Your task to perform on an android device: open app "Cash App" (install if not already installed) Image 0: 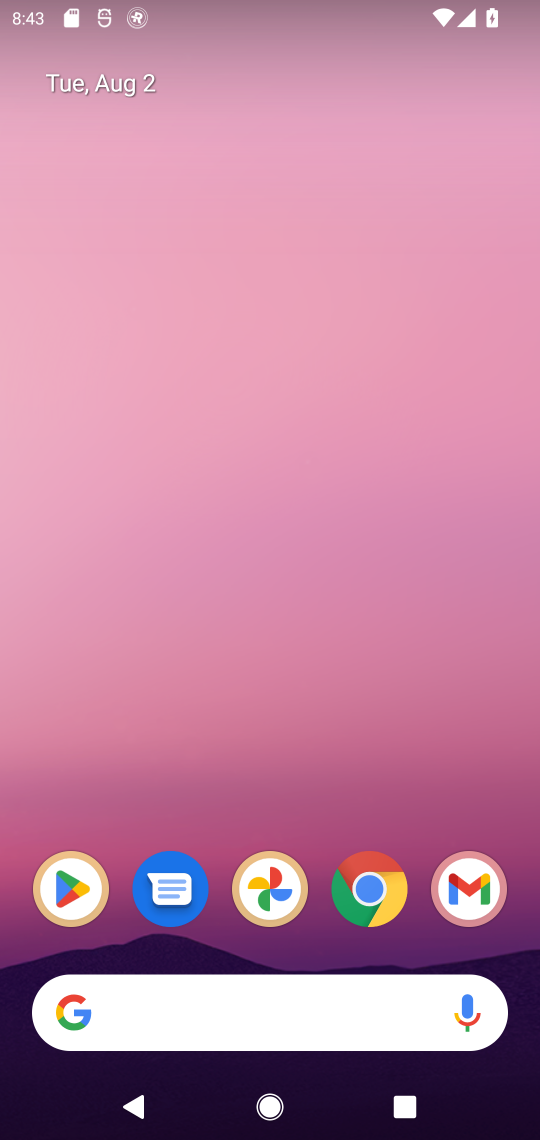
Step 0: press home button
Your task to perform on an android device: open app "Cash App" (install if not already installed) Image 1: 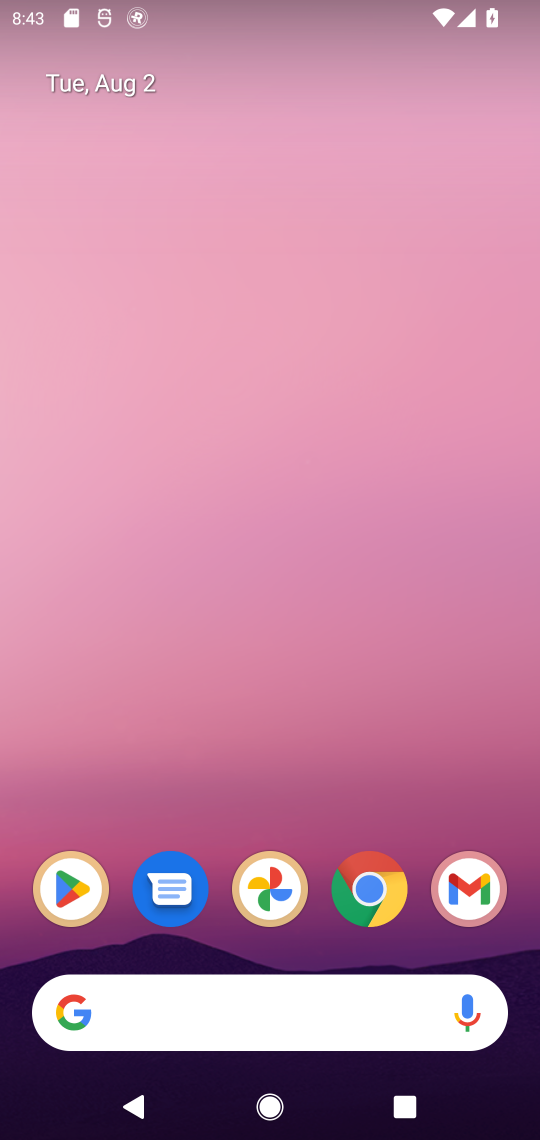
Step 1: click (64, 884)
Your task to perform on an android device: open app "Cash App" (install if not already installed) Image 2: 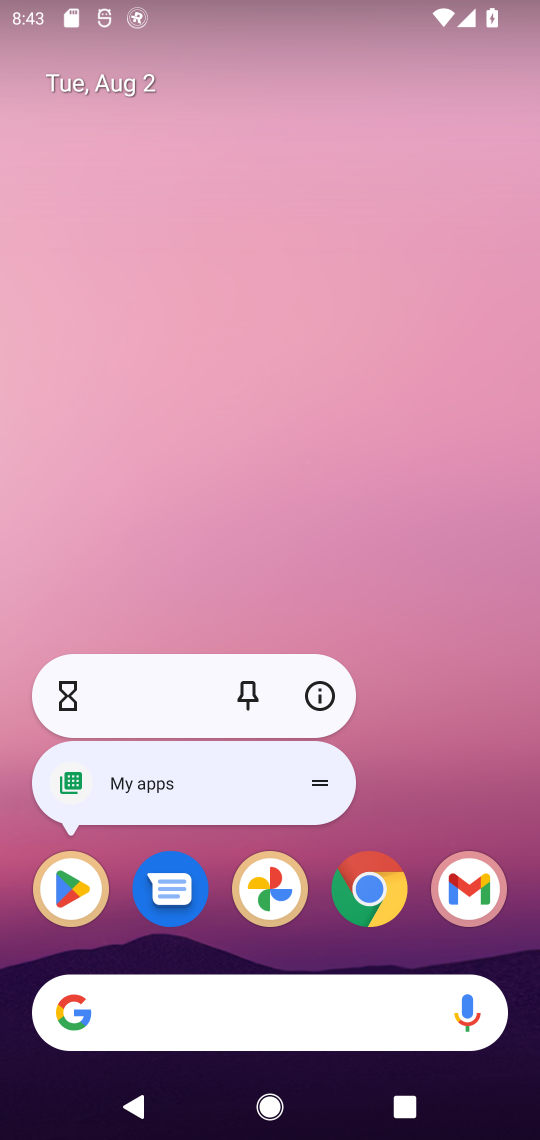
Step 2: click (74, 895)
Your task to perform on an android device: open app "Cash App" (install if not already installed) Image 3: 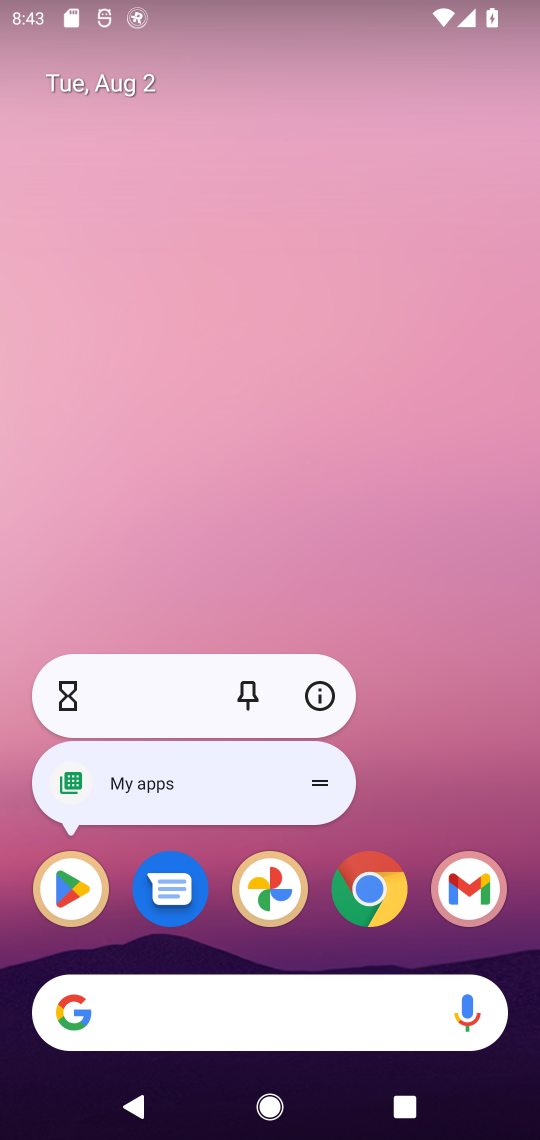
Step 3: click (62, 881)
Your task to perform on an android device: open app "Cash App" (install if not already installed) Image 4: 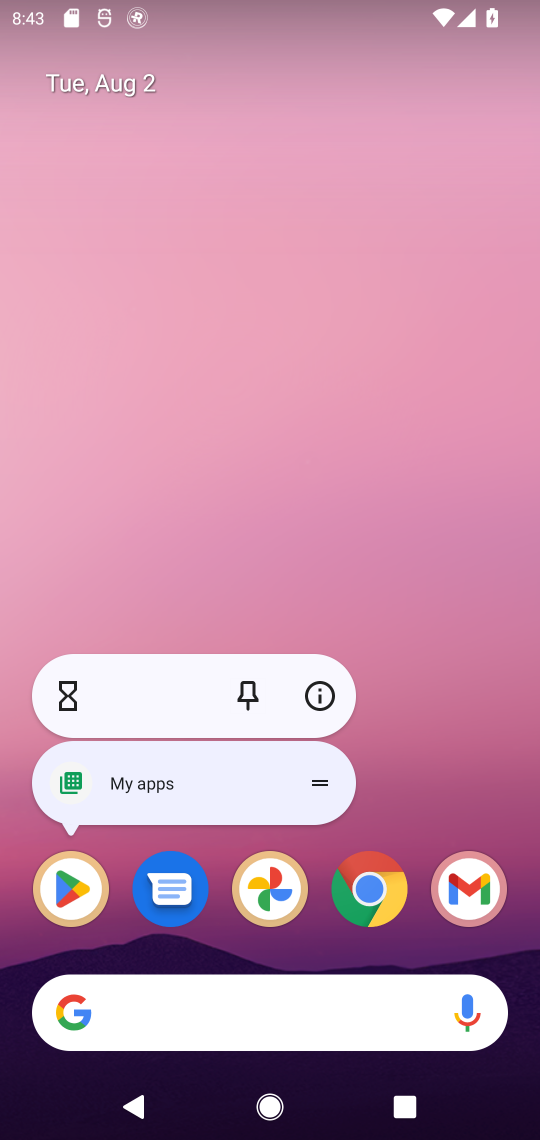
Step 4: click (62, 881)
Your task to perform on an android device: open app "Cash App" (install if not already installed) Image 5: 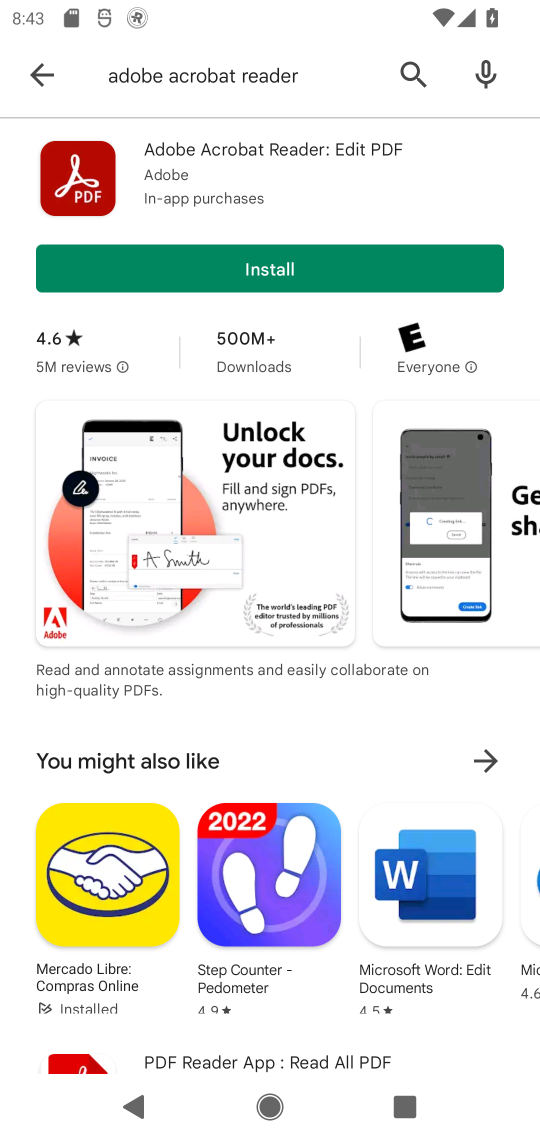
Step 5: click (413, 71)
Your task to perform on an android device: open app "Cash App" (install if not already installed) Image 6: 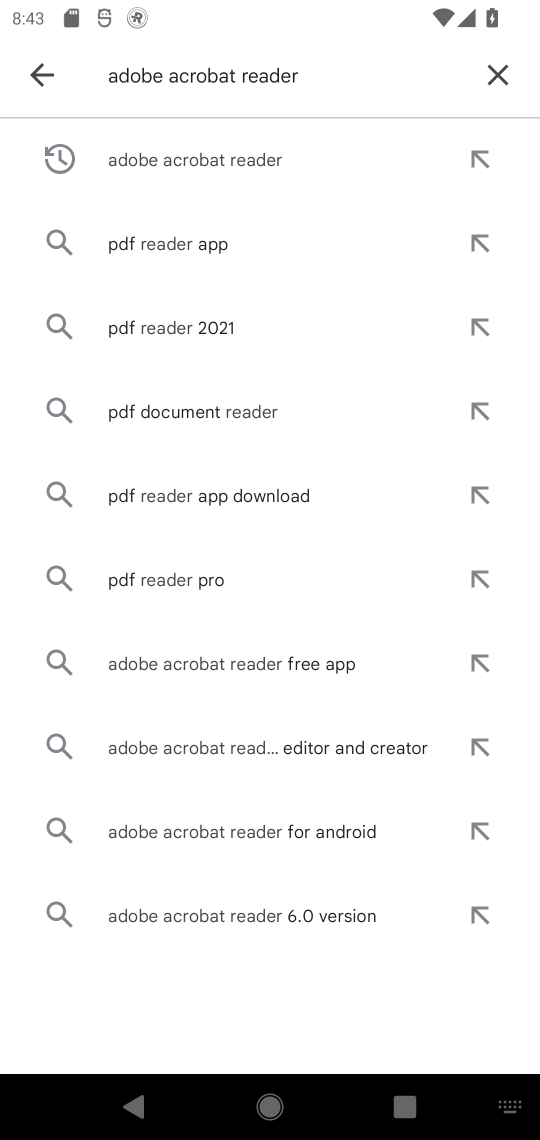
Step 6: click (491, 63)
Your task to perform on an android device: open app "Cash App" (install if not already installed) Image 7: 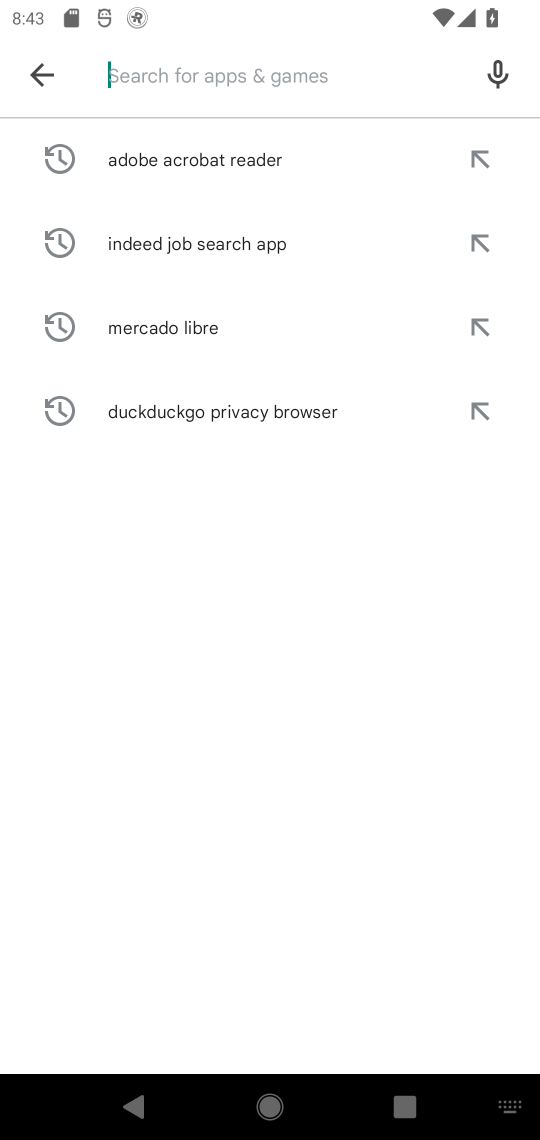
Step 7: type "Cash App"
Your task to perform on an android device: open app "Cash App" (install if not already installed) Image 8: 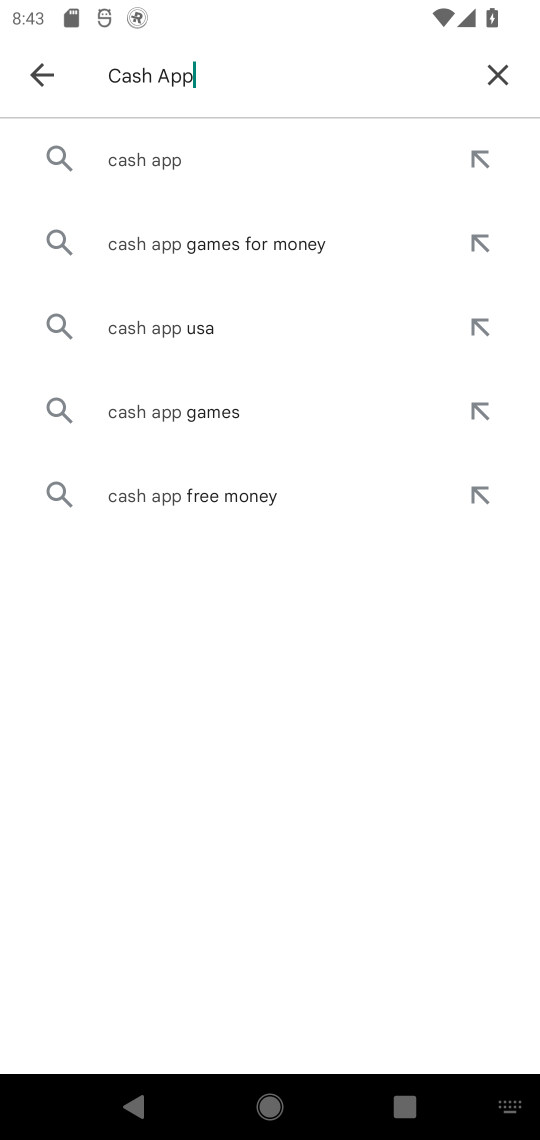
Step 8: click (160, 166)
Your task to perform on an android device: open app "Cash App" (install if not already installed) Image 9: 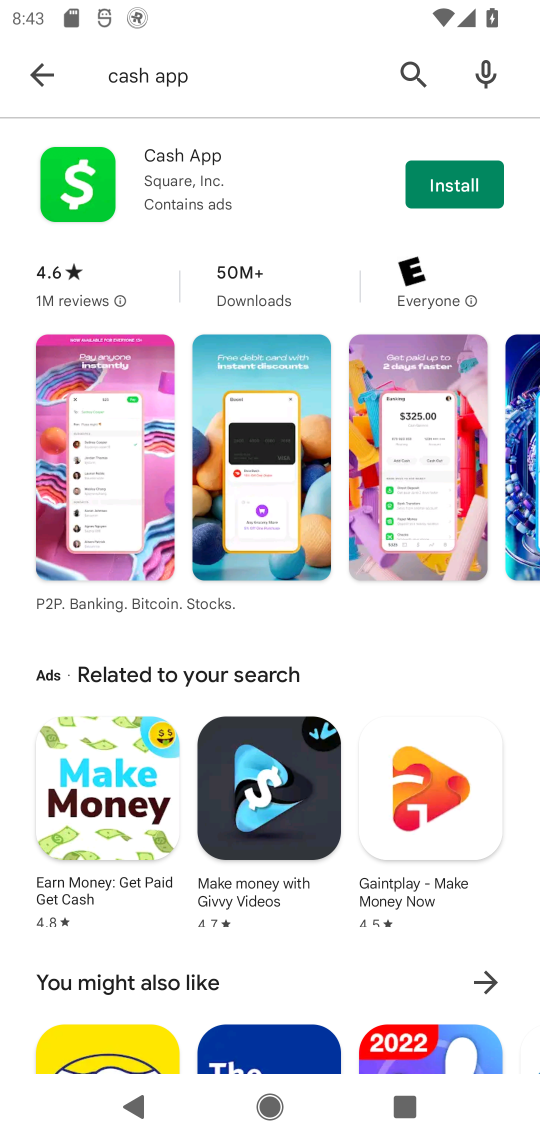
Step 9: click (478, 186)
Your task to perform on an android device: open app "Cash App" (install if not already installed) Image 10: 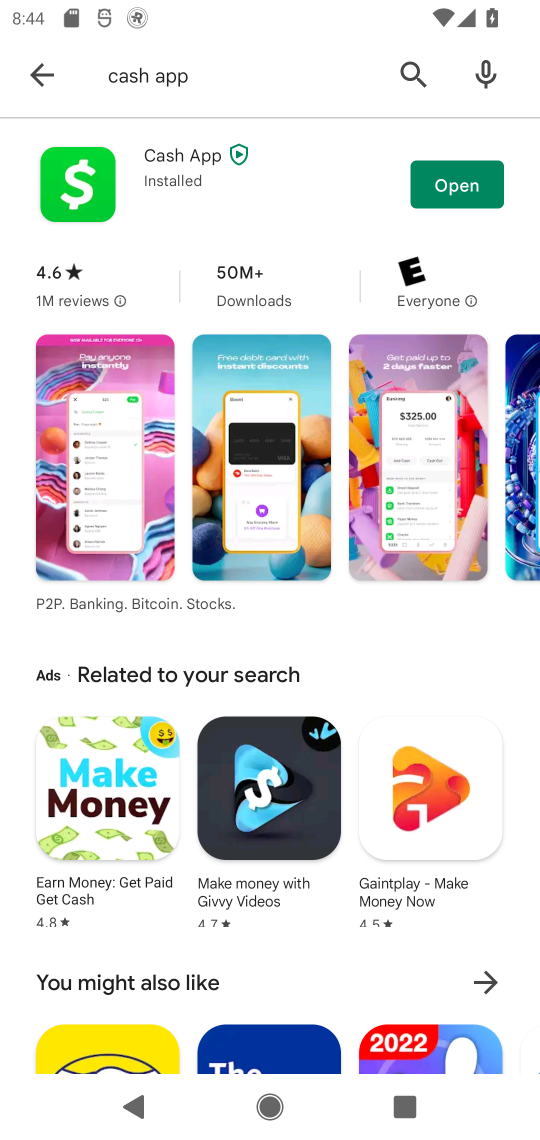
Step 10: click (470, 181)
Your task to perform on an android device: open app "Cash App" (install if not already installed) Image 11: 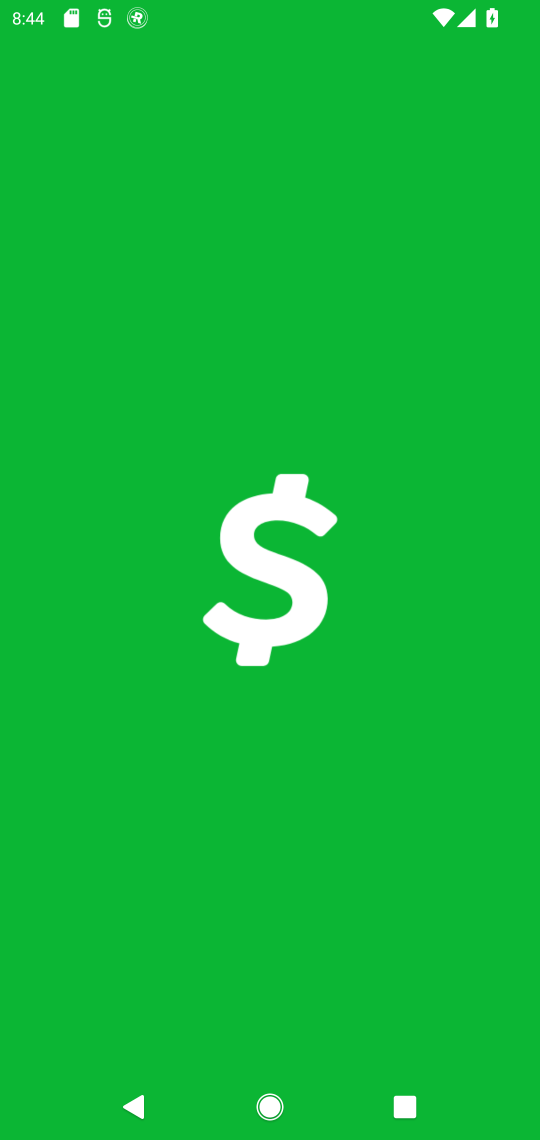
Step 11: task complete